Your task to perform on an android device: Clear the shopping cart on newegg.com. Add razer huntsman to the cart on newegg.com, then select checkout. Image 0: 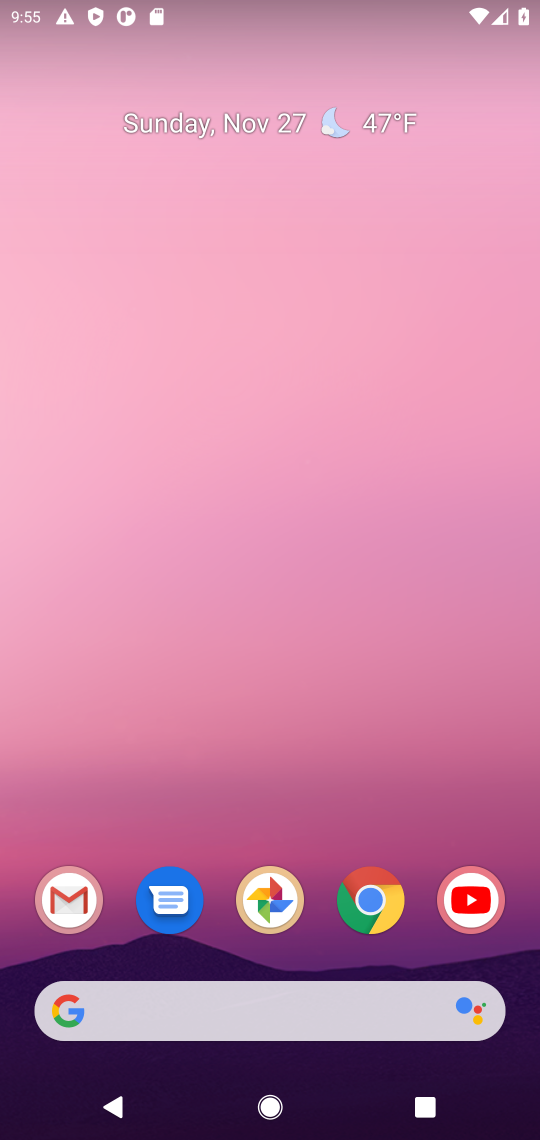
Step 0: click (368, 908)
Your task to perform on an android device: Clear the shopping cart on newegg.com. Add razer huntsman to the cart on newegg.com, then select checkout. Image 1: 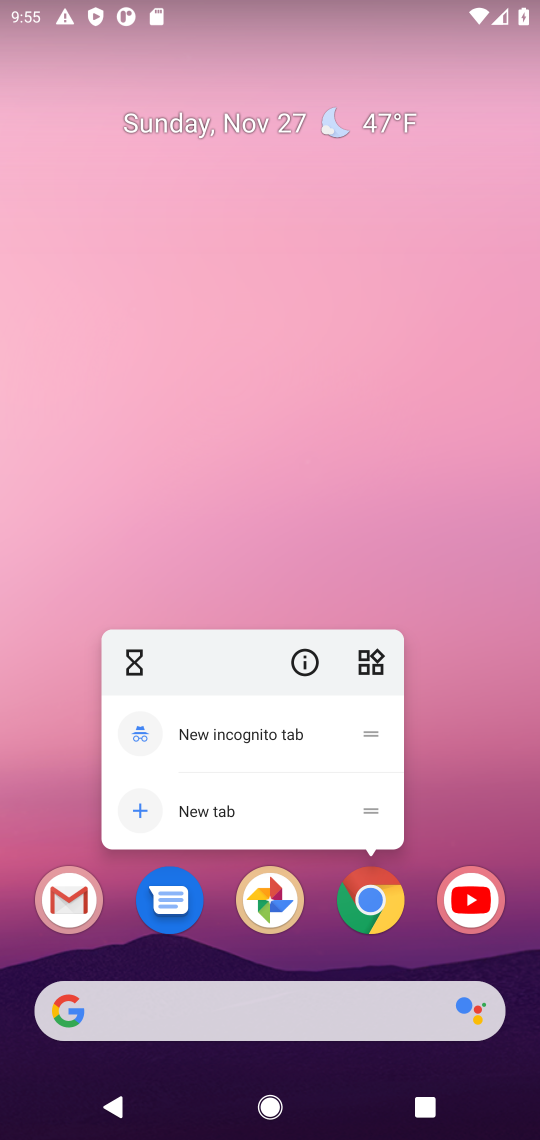
Step 1: click (368, 908)
Your task to perform on an android device: Clear the shopping cart on newegg.com. Add razer huntsman to the cart on newegg.com, then select checkout. Image 2: 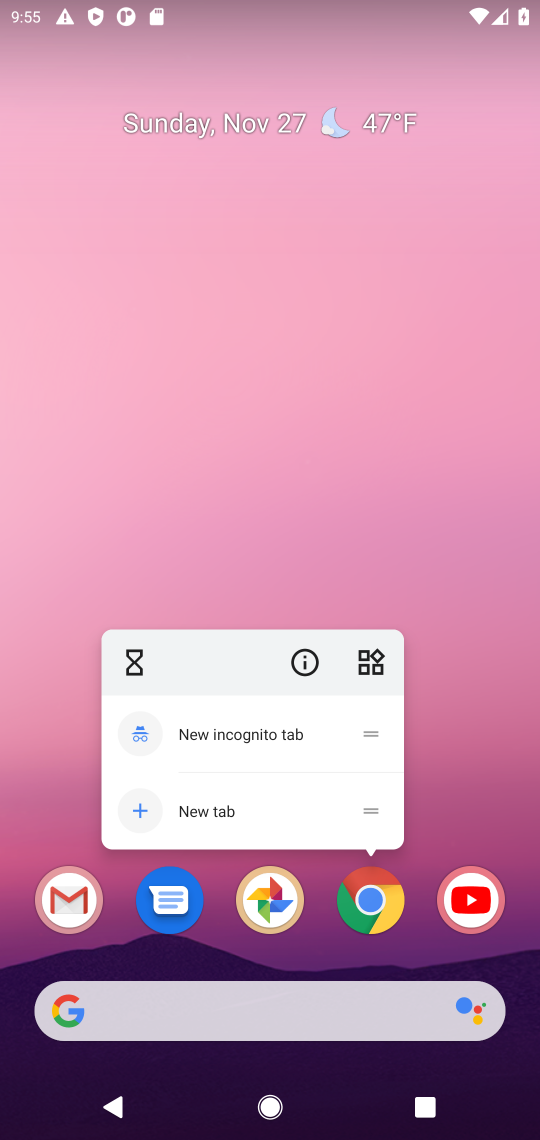
Step 2: click (489, 822)
Your task to perform on an android device: Clear the shopping cart on newegg.com. Add razer huntsman to the cart on newegg.com, then select checkout. Image 3: 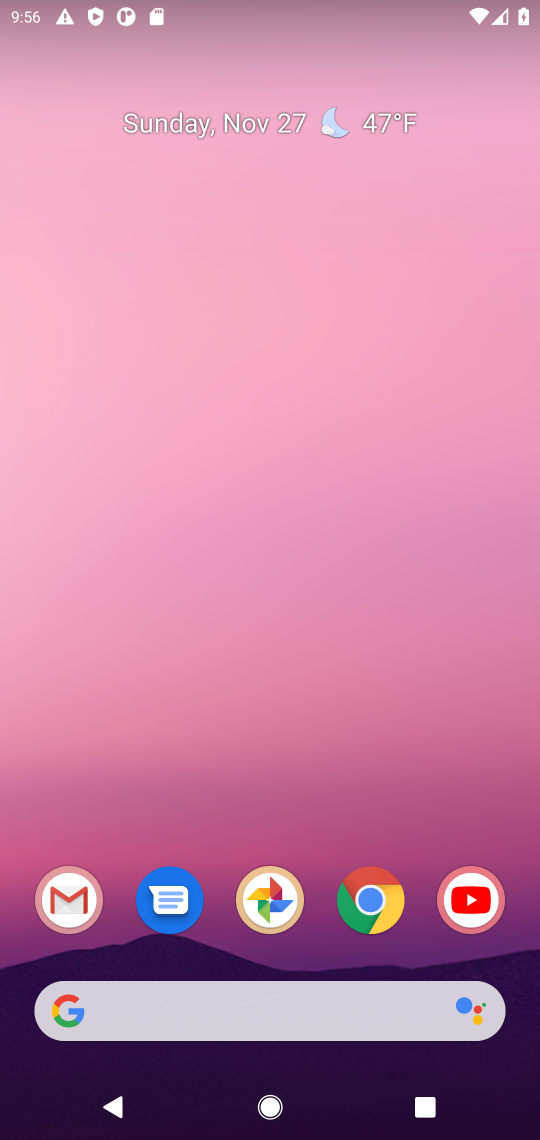
Step 3: click (375, 900)
Your task to perform on an android device: Clear the shopping cart on newegg.com. Add razer huntsman to the cart on newegg.com, then select checkout. Image 4: 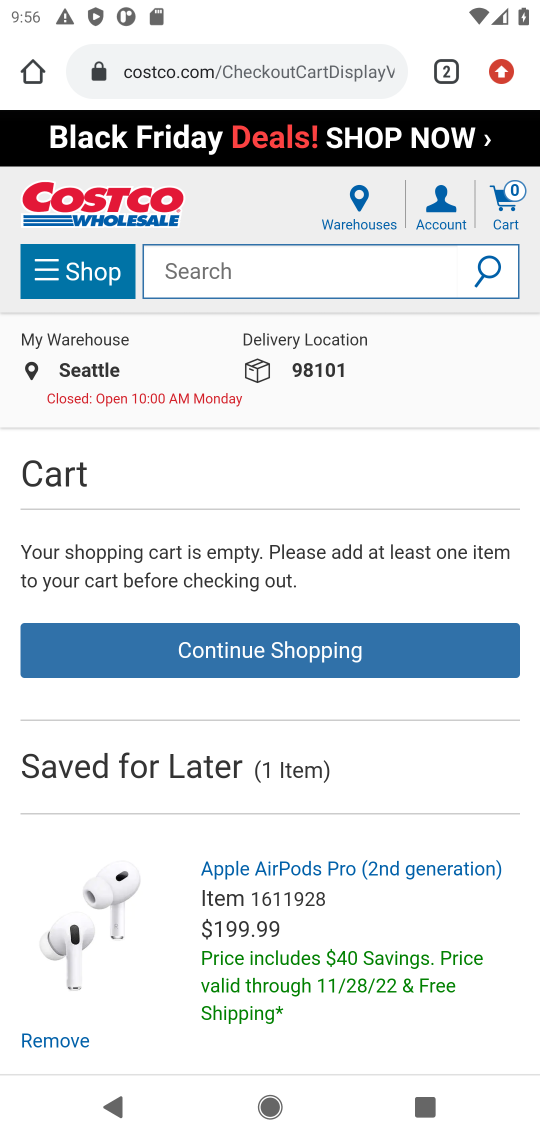
Step 4: click (200, 67)
Your task to perform on an android device: Clear the shopping cart on newegg.com. Add razer huntsman to the cart on newegg.com, then select checkout. Image 5: 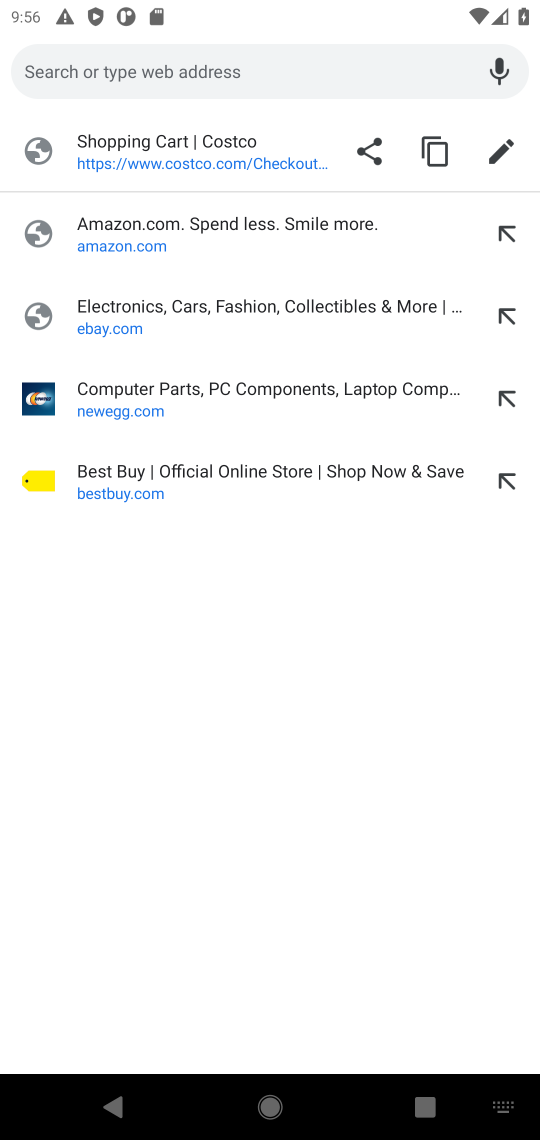
Step 5: click (104, 404)
Your task to perform on an android device: Clear the shopping cart on newegg.com. Add razer huntsman to the cart on newegg.com, then select checkout. Image 6: 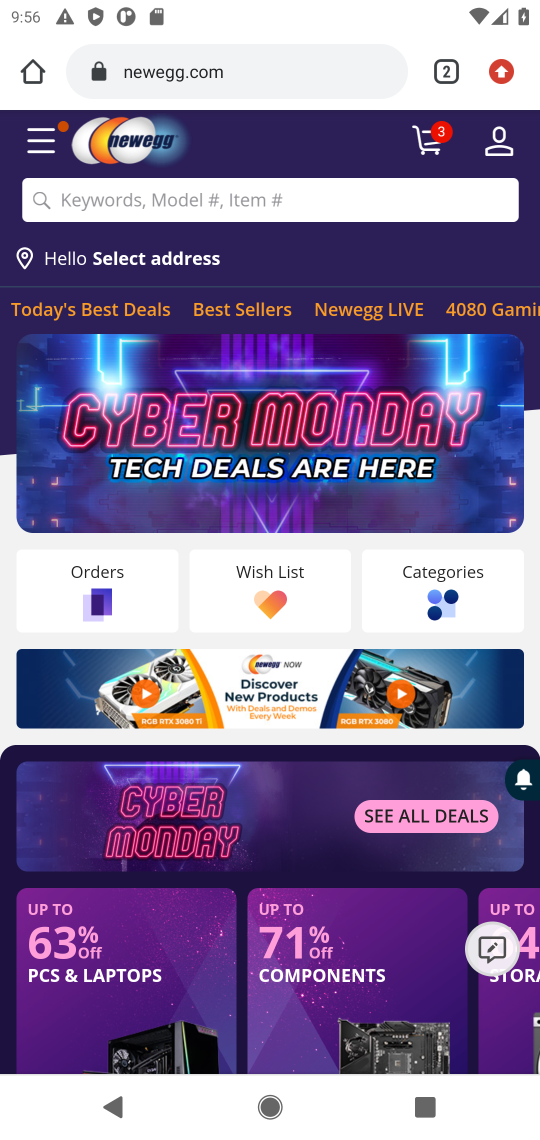
Step 6: click (437, 135)
Your task to perform on an android device: Clear the shopping cart on newegg.com. Add razer huntsman to the cart on newegg.com, then select checkout. Image 7: 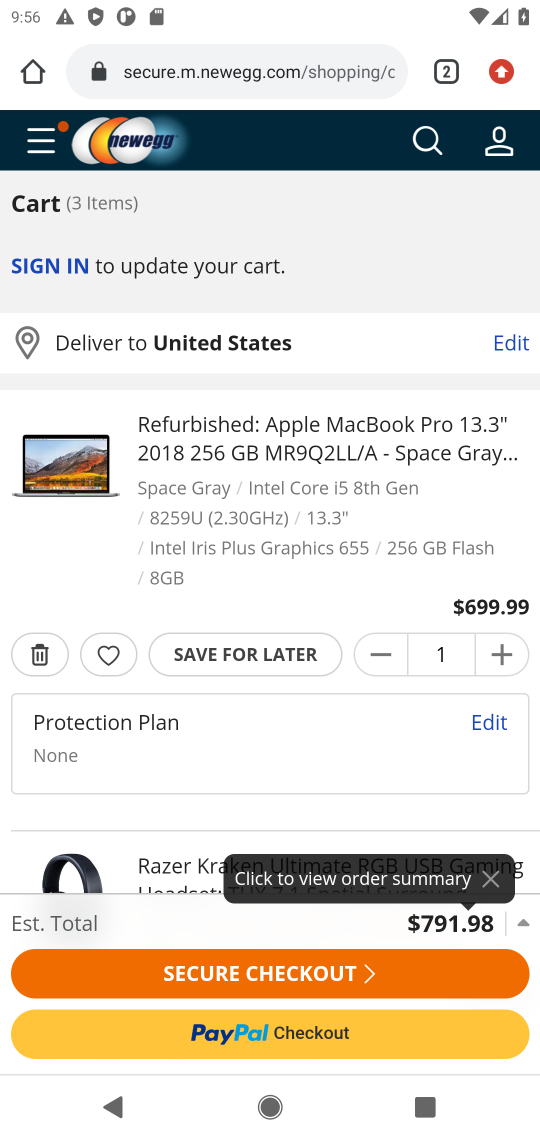
Step 7: click (40, 654)
Your task to perform on an android device: Clear the shopping cart on newegg.com. Add razer huntsman to the cart on newegg.com, then select checkout. Image 8: 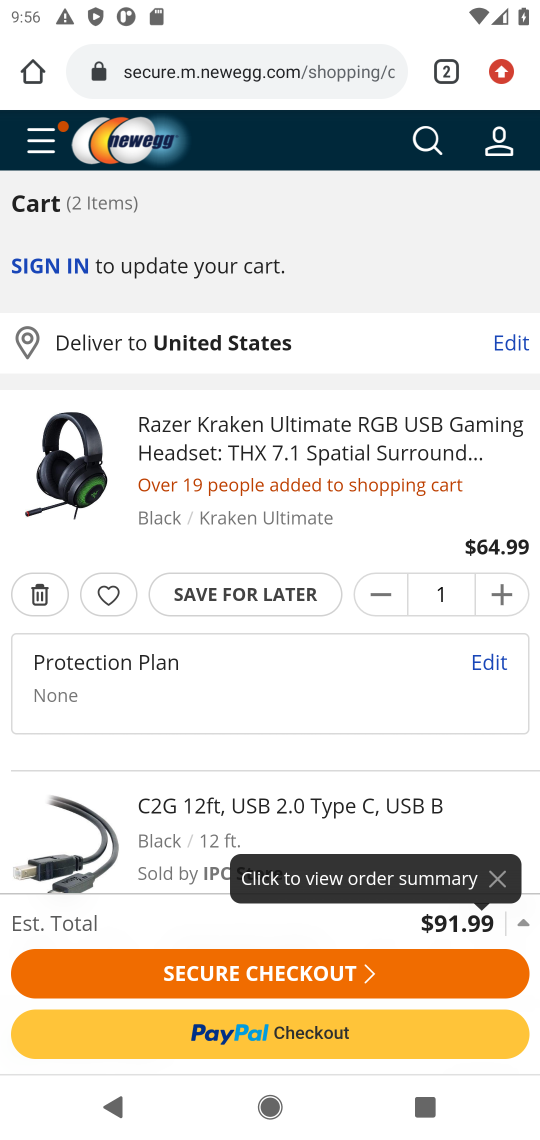
Step 8: click (31, 599)
Your task to perform on an android device: Clear the shopping cart on newegg.com. Add razer huntsman to the cart on newegg.com, then select checkout. Image 9: 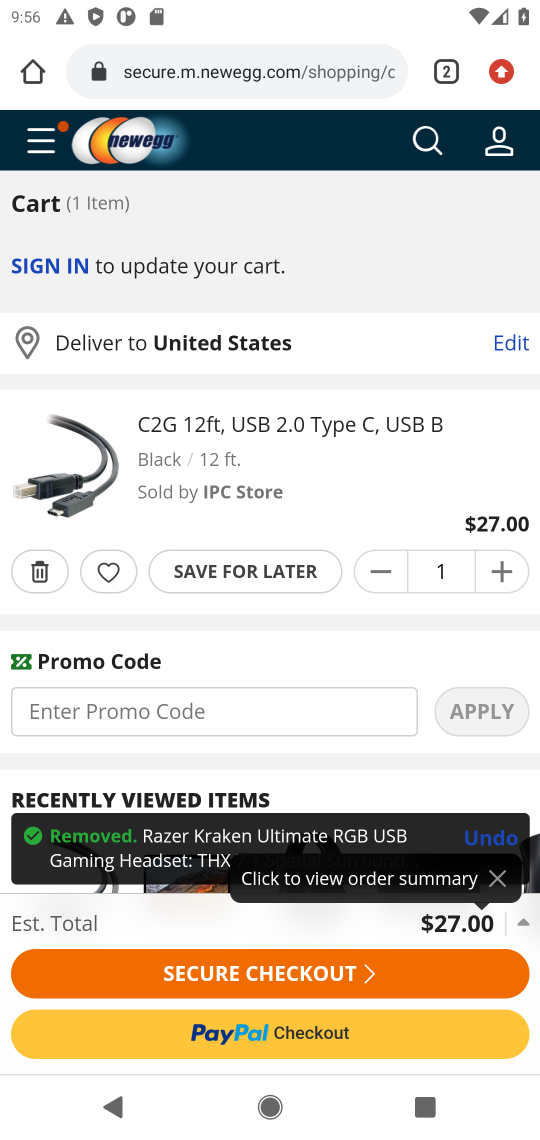
Step 9: click (32, 574)
Your task to perform on an android device: Clear the shopping cart on newegg.com. Add razer huntsman to the cart on newegg.com, then select checkout. Image 10: 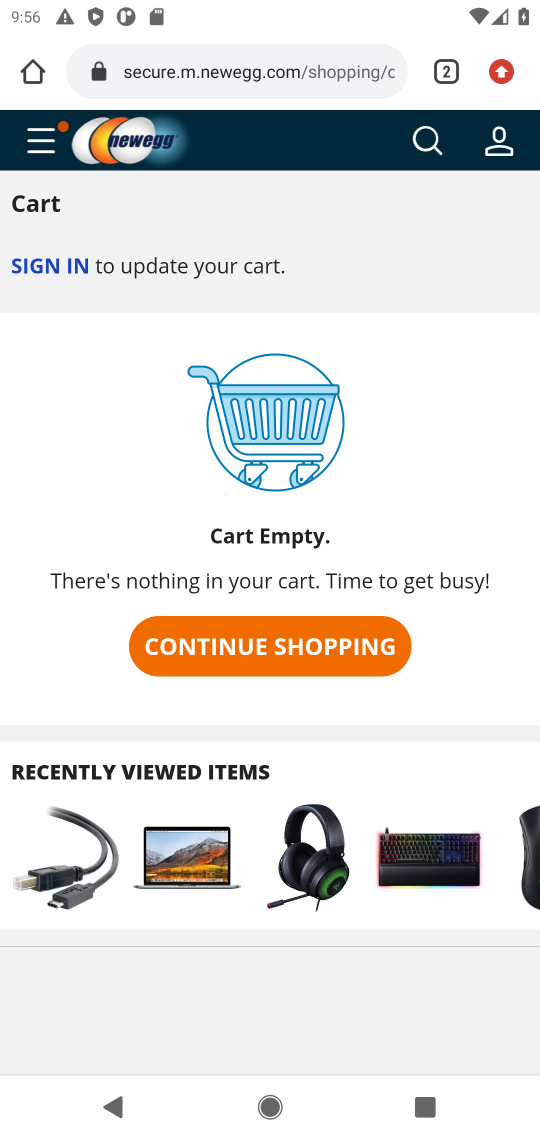
Step 10: click (245, 650)
Your task to perform on an android device: Clear the shopping cart on newegg.com. Add razer huntsman to the cart on newegg.com, then select checkout. Image 11: 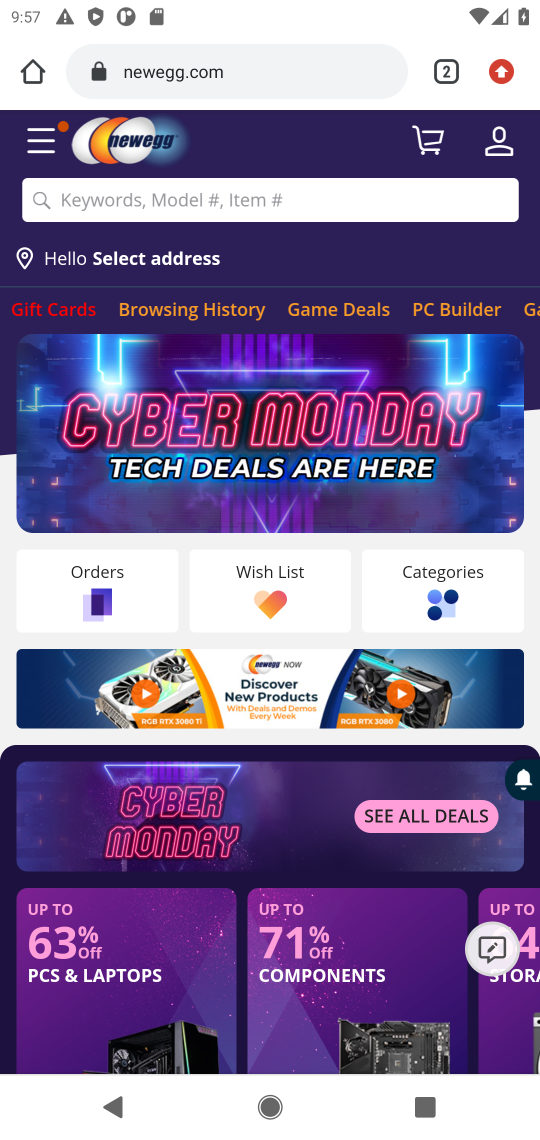
Step 11: click (125, 197)
Your task to perform on an android device: Clear the shopping cart on newegg.com. Add razer huntsman to the cart on newegg.com, then select checkout. Image 12: 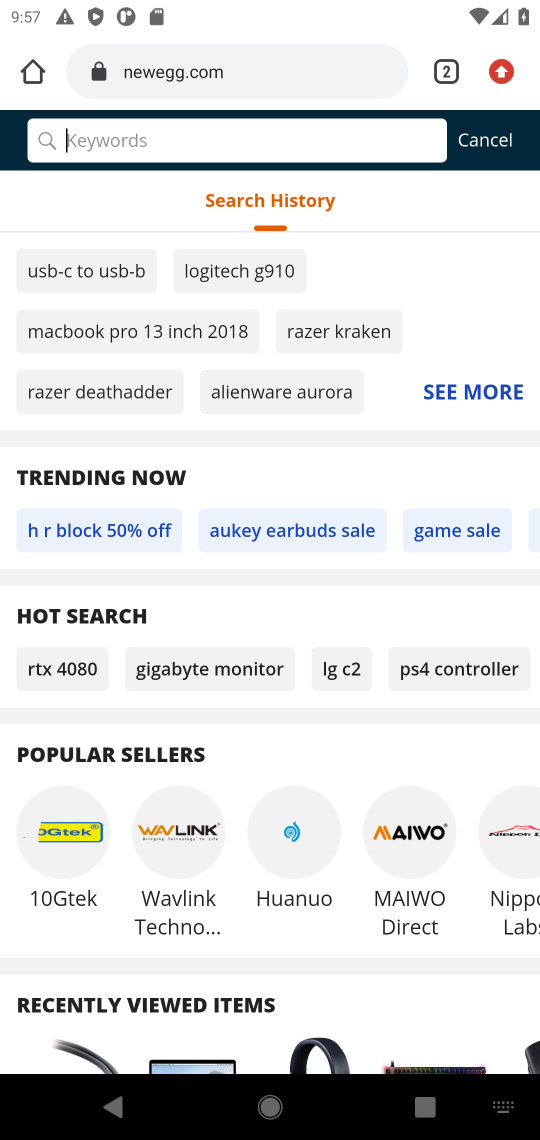
Step 12: type "razer huntsman"
Your task to perform on an android device: Clear the shopping cart on newegg.com. Add razer huntsman to the cart on newegg.com, then select checkout. Image 13: 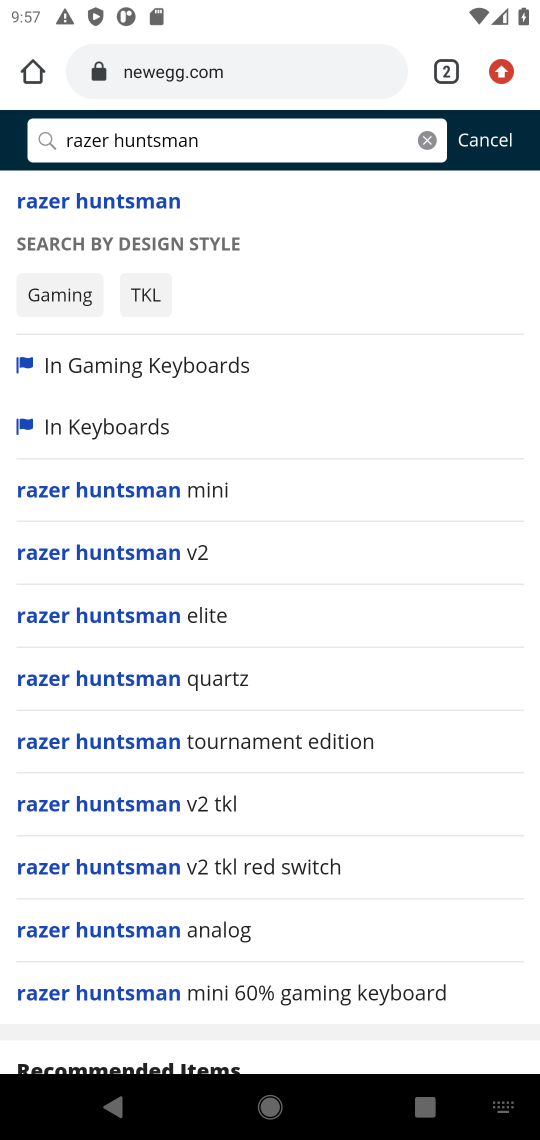
Step 13: click (91, 208)
Your task to perform on an android device: Clear the shopping cart on newegg.com. Add razer huntsman to the cart on newegg.com, then select checkout. Image 14: 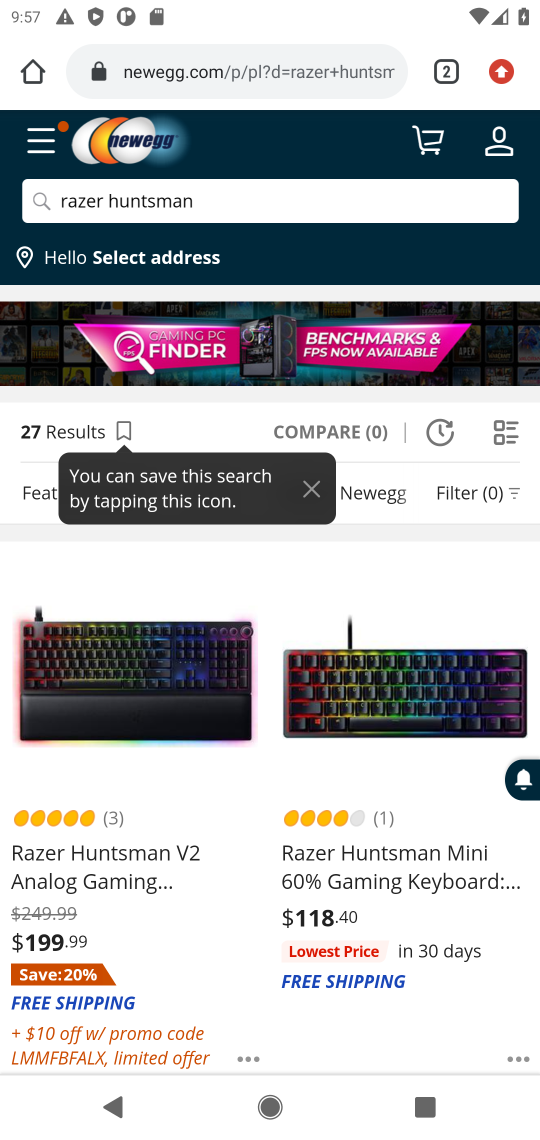
Step 14: click (61, 861)
Your task to perform on an android device: Clear the shopping cart on newegg.com. Add razer huntsman to the cart on newegg.com, then select checkout. Image 15: 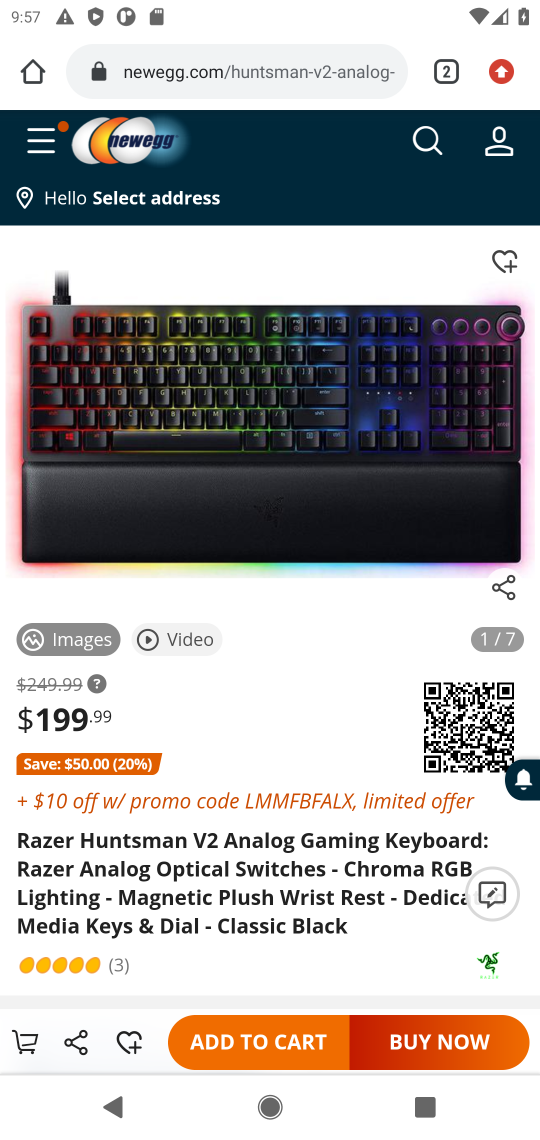
Step 15: click (254, 1048)
Your task to perform on an android device: Clear the shopping cart on newegg.com. Add razer huntsman to the cart on newegg.com, then select checkout. Image 16: 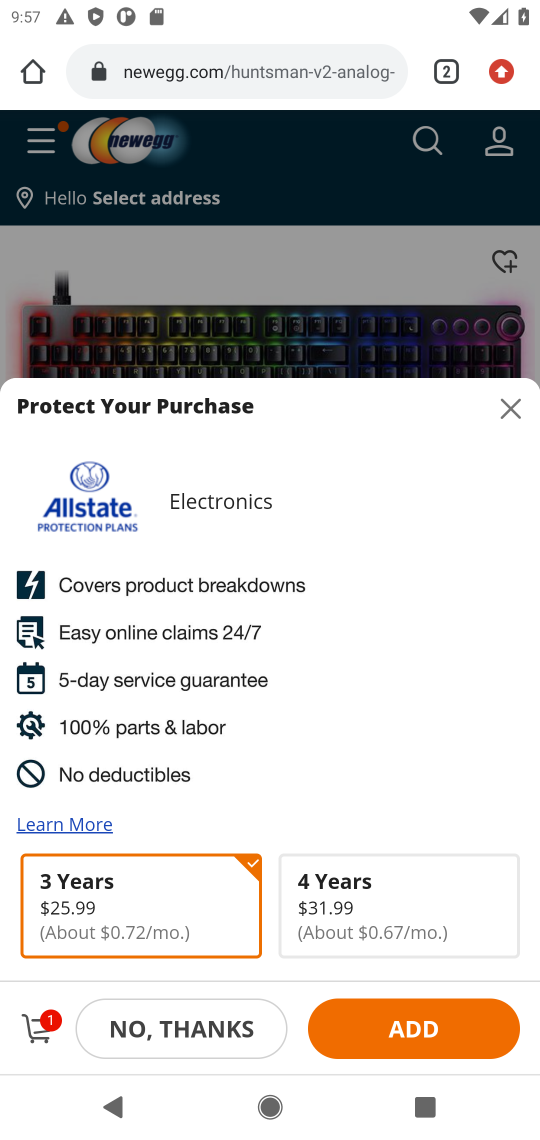
Step 16: click (36, 1033)
Your task to perform on an android device: Clear the shopping cart on newegg.com. Add razer huntsman to the cart on newegg.com, then select checkout. Image 17: 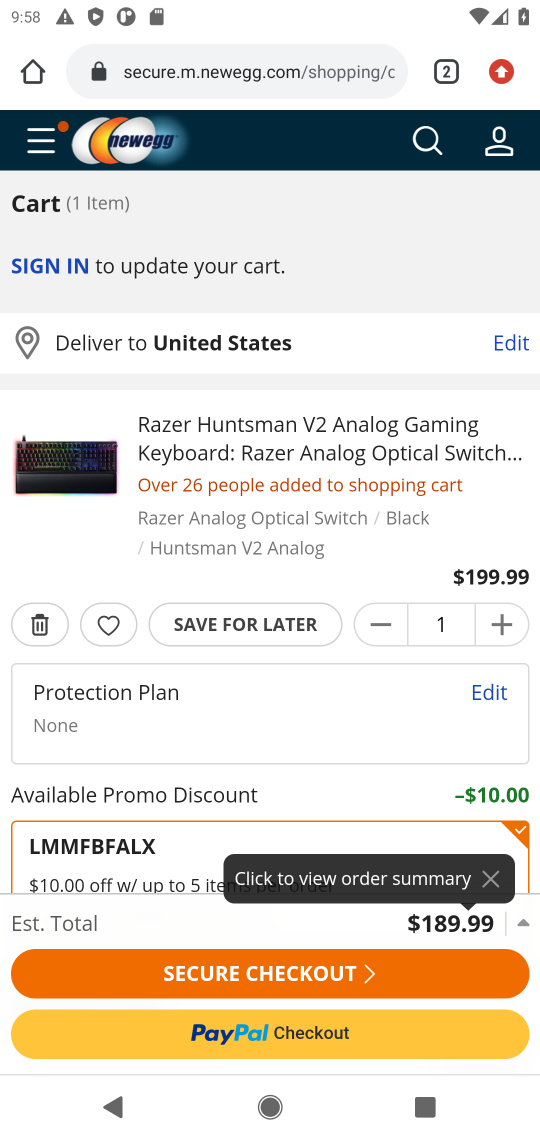
Step 17: click (211, 977)
Your task to perform on an android device: Clear the shopping cart on newegg.com. Add razer huntsman to the cart on newegg.com, then select checkout. Image 18: 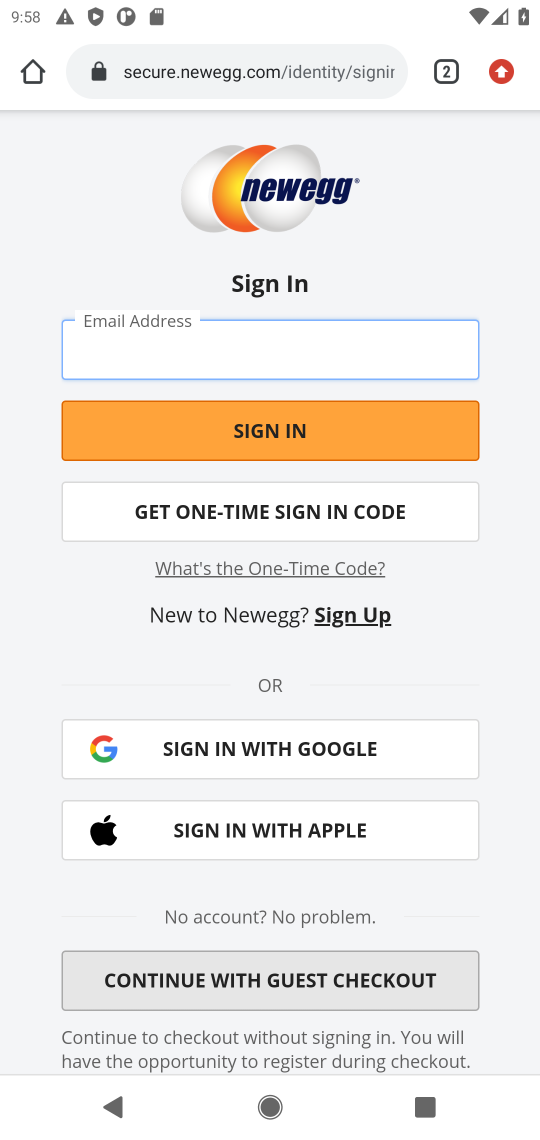
Step 18: task complete